Your task to perform on an android device: Set the phone to "Do not disturb". Image 0: 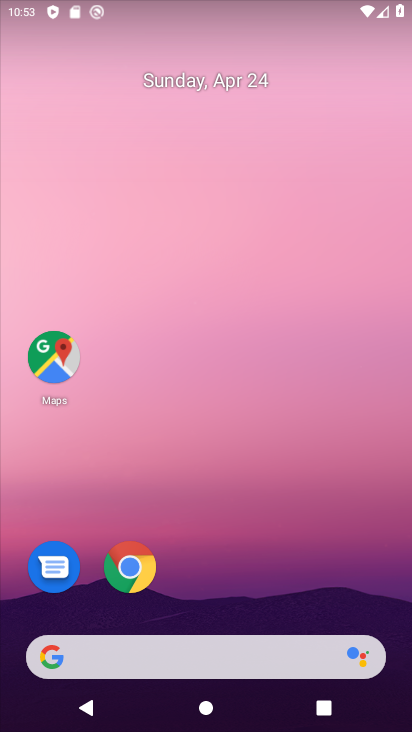
Step 0: drag from (143, 451) to (194, 27)
Your task to perform on an android device: Set the phone to "Do not disturb". Image 1: 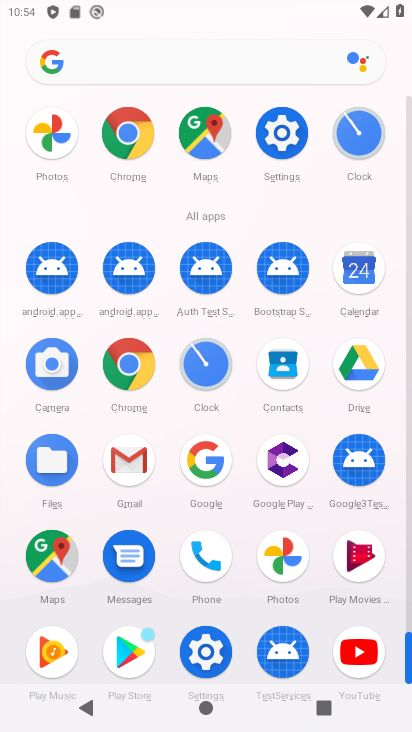
Step 1: click (210, 651)
Your task to perform on an android device: Set the phone to "Do not disturb". Image 2: 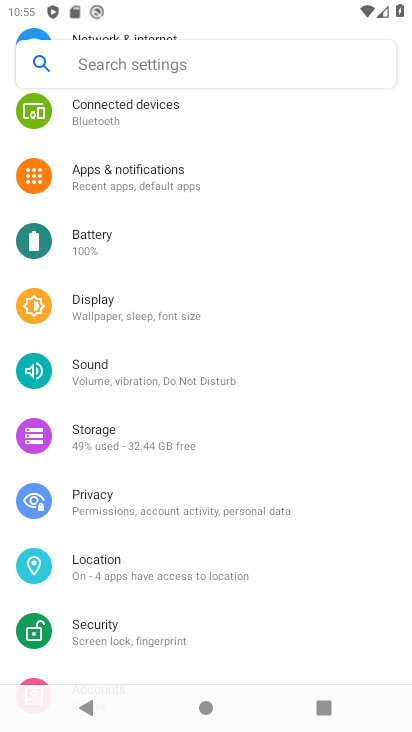
Step 2: click (106, 373)
Your task to perform on an android device: Set the phone to "Do not disturb". Image 3: 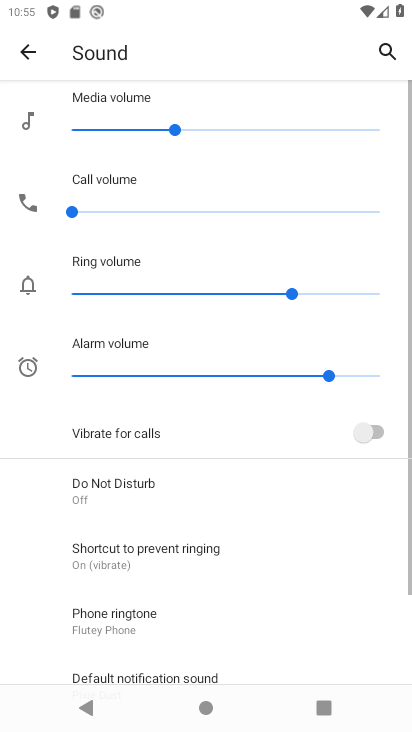
Step 3: drag from (297, 661) to (274, 293)
Your task to perform on an android device: Set the phone to "Do not disturb". Image 4: 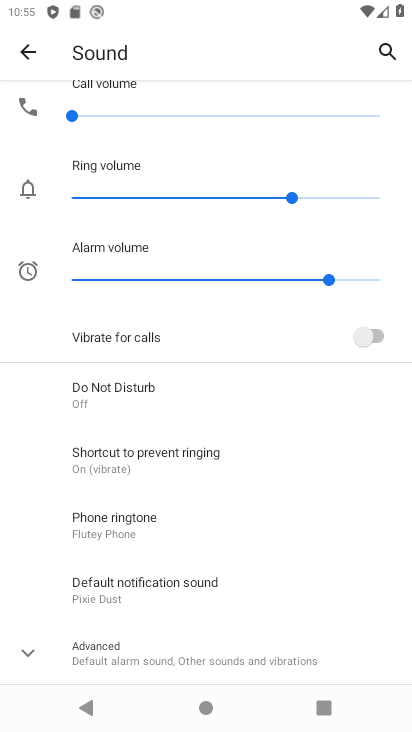
Step 4: click (189, 385)
Your task to perform on an android device: Set the phone to "Do not disturb". Image 5: 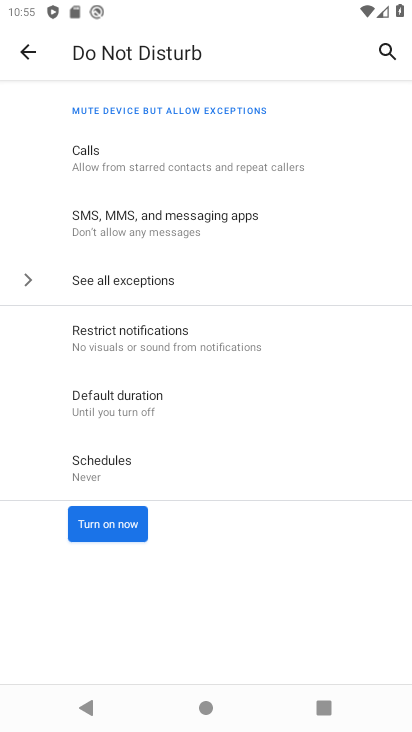
Step 5: click (118, 506)
Your task to perform on an android device: Set the phone to "Do not disturb". Image 6: 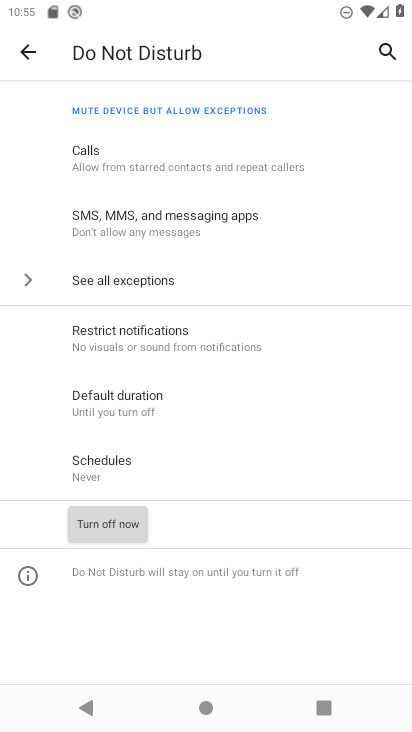
Step 6: task complete